Your task to perform on an android device: Search for top rated burger restaurants on Maps Image 0: 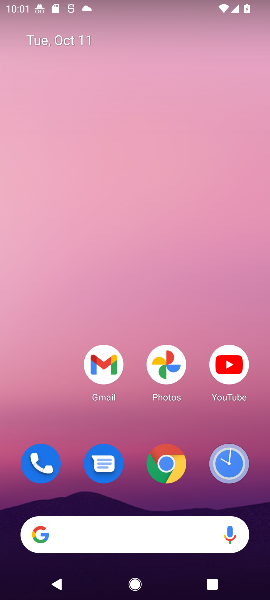
Step 0: drag from (126, 491) to (110, 64)
Your task to perform on an android device: Search for top rated burger restaurants on Maps Image 1: 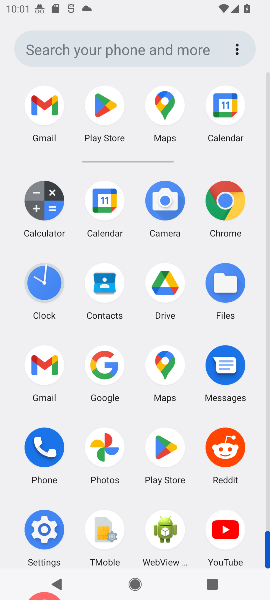
Step 1: click (111, 355)
Your task to perform on an android device: Search for top rated burger restaurants on Maps Image 2: 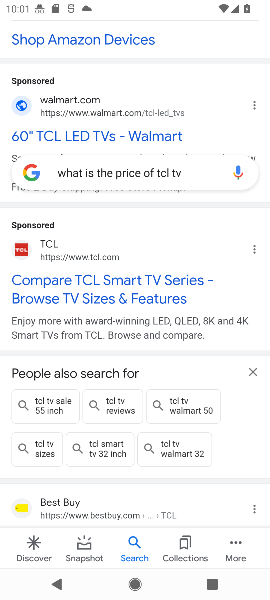
Step 2: click (126, 166)
Your task to perform on an android device: Search for top rated burger restaurants on Maps Image 3: 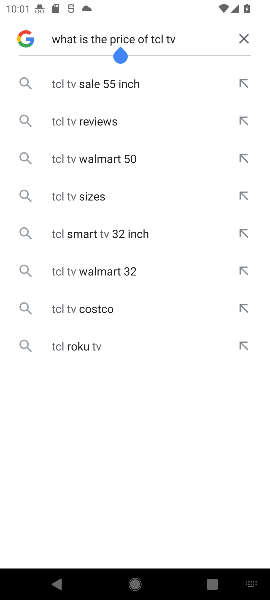
Step 3: click (238, 34)
Your task to perform on an android device: Search for top rated burger restaurants on Maps Image 4: 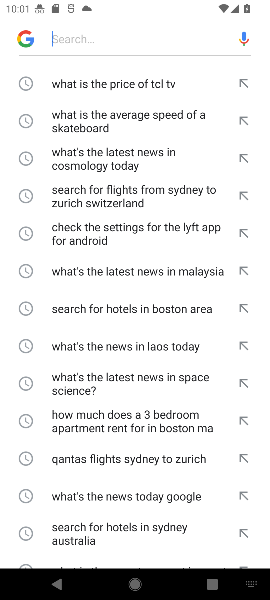
Step 4: click (155, 31)
Your task to perform on an android device: Search for top rated burger restaurants on Maps Image 5: 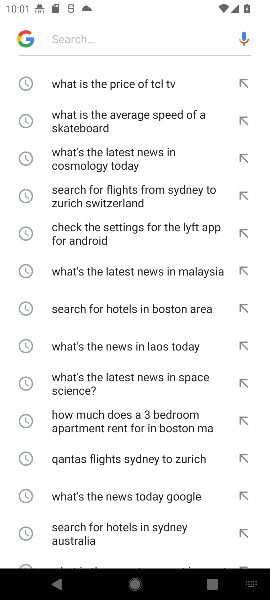
Step 5: type "Search for top rated burger restaurants on Maps "
Your task to perform on an android device: Search for top rated burger restaurants on Maps Image 6: 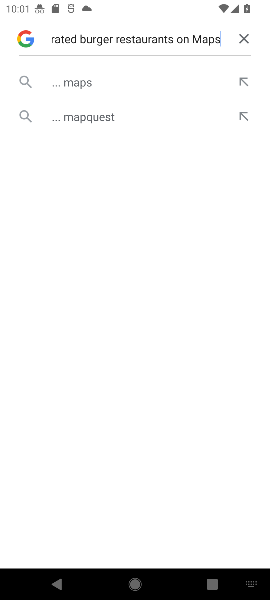
Step 6: press home button
Your task to perform on an android device: Search for top rated burger restaurants on Maps Image 7: 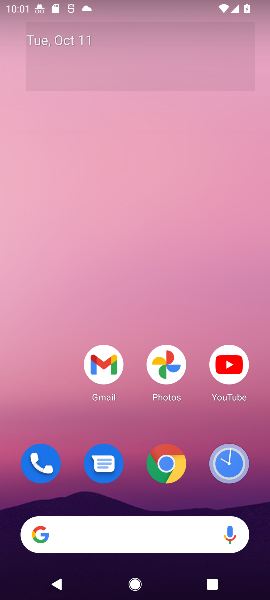
Step 7: drag from (159, 430) to (167, 158)
Your task to perform on an android device: Search for top rated burger restaurants on Maps Image 8: 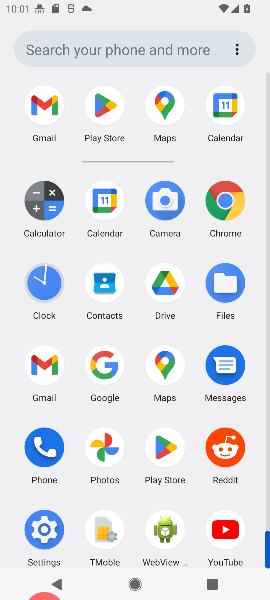
Step 8: click (162, 361)
Your task to perform on an android device: Search for top rated burger restaurants on Maps Image 9: 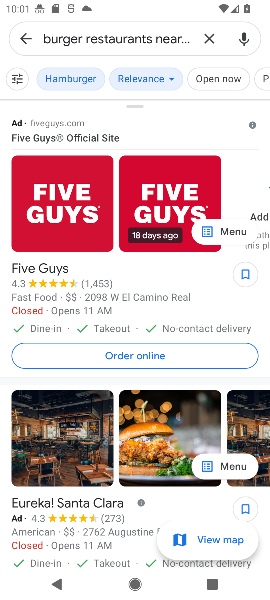
Step 9: task complete